Your task to perform on an android device: find snoozed emails in the gmail app Image 0: 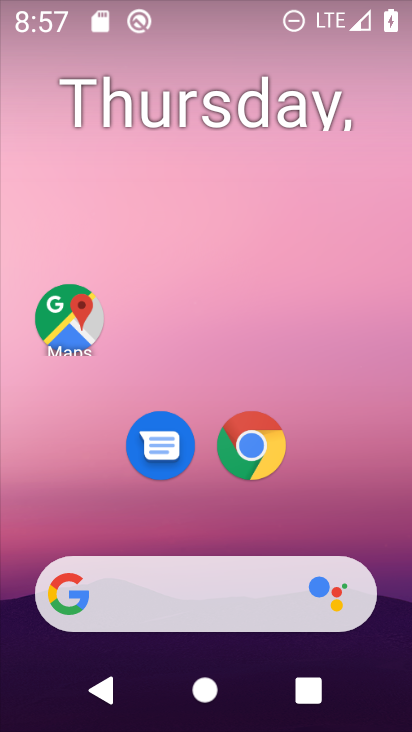
Step 0: drag from (388, 576) to (316, 38)
Your task to perform on an android device: find snoozed emails in the gmail app Image 1: 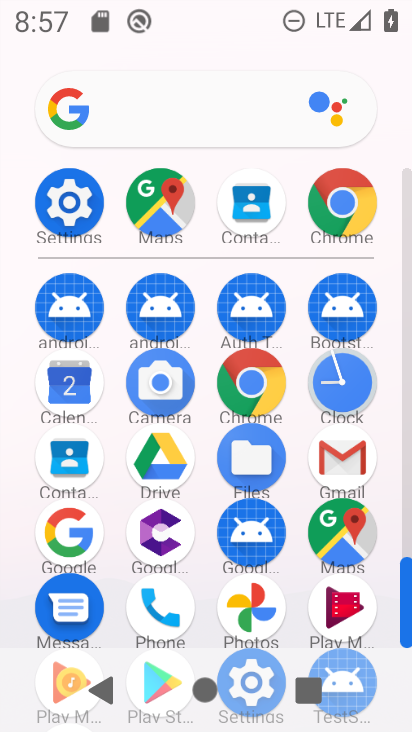
Step 1: click (384, 453)
Your task to perform on an android device: find snoozed emails in the gmail app Image 2: 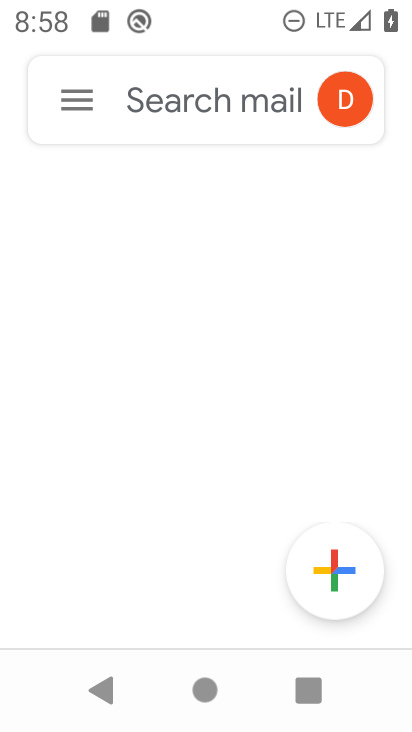
Step 2: click (51, 102)
Your task to perform on an android device: find snoozed emails in the gmail app Image 3: 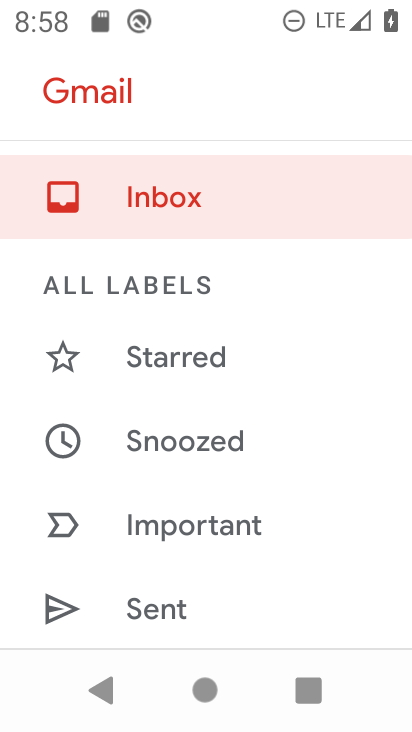
Step 3: click (207, 451)
Your task to perform on an android device: find snoozed emails in the gmail app Image 4: 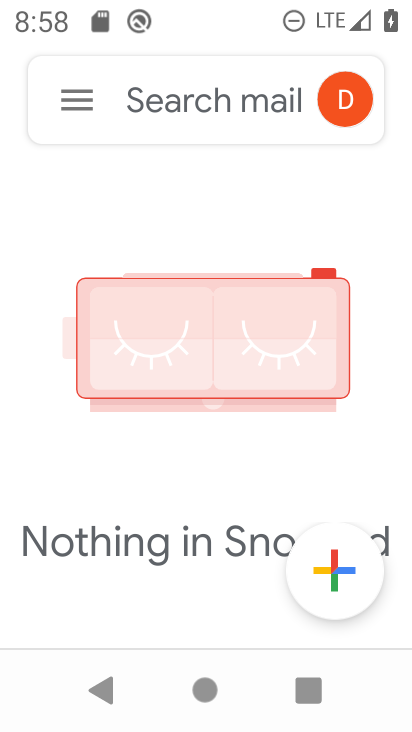
Step 4: task complete